Your task to perform on an android device: all mails in gmail Image 0: 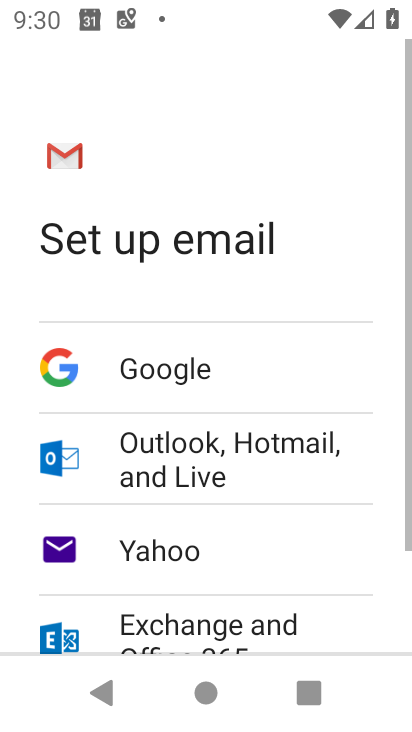
Step 0: press home button
Your task to perform on an android device: all mails in gmail Image 1: 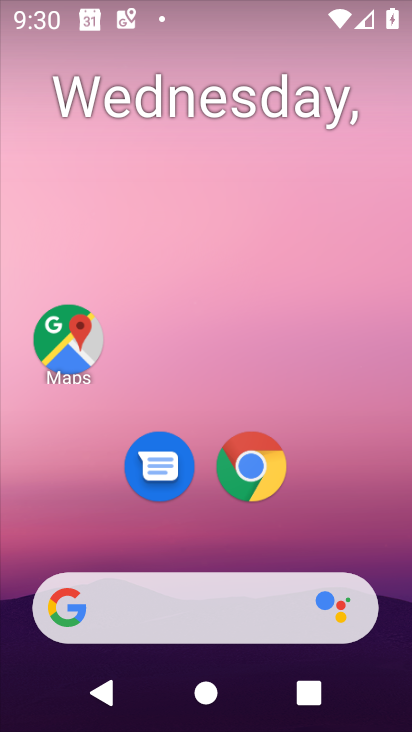
Step 1: drag from (308, 459) to (312, 272)
Your task to perform on an android device: all mails in gmail Image 2: 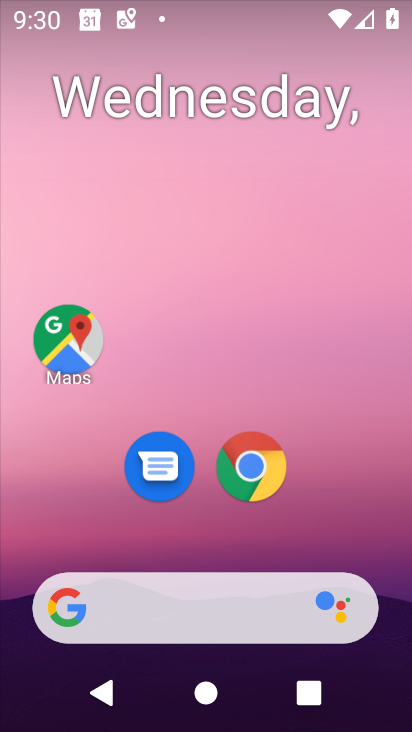
Step 2: drag from (288, 593) to (273, 184)
Your task to perform on an android device: all mails in gmail Image 3: 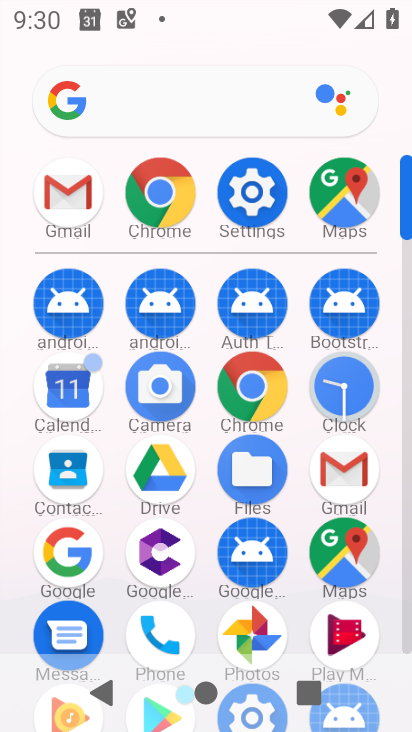
Step 3: click (75, 175)
Your task to perform on an android device: all mails in gmail Image 4: 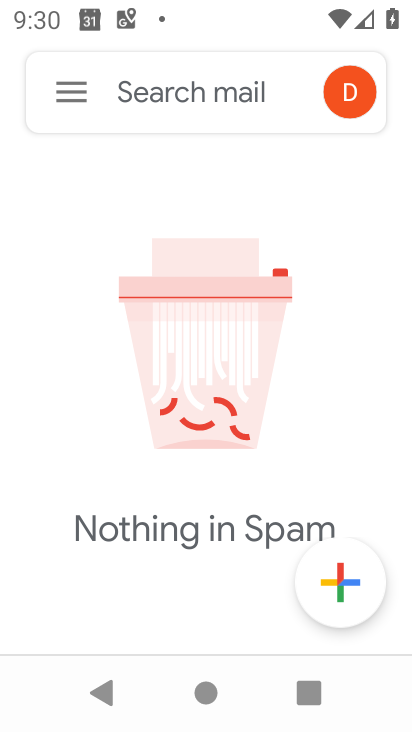
Step 4: click (64, 95)
Your task to perform on an android device: all mails in gmail Image 5: 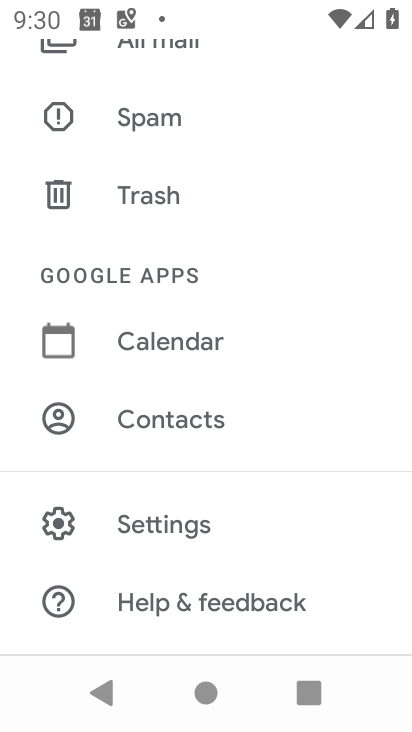
Step 5: drag from (167, 198) to (184, 479)
Your task to perform on an android device: all mails in gmail Image 6: 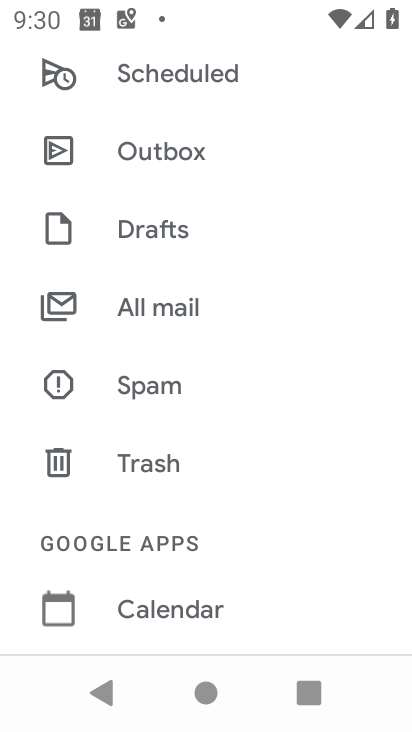
Step 6: click (160, 297)
Your task to perform on an android device: all mails in gmail Image 7: 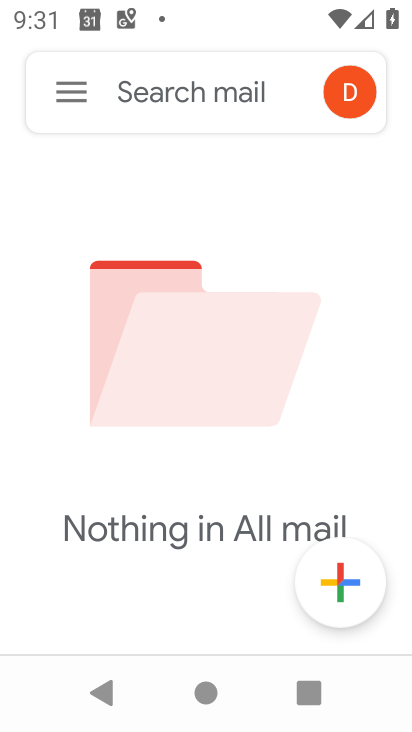
Step 7: task complete